Your task to perform on an android device: toggle notifications settings in the gmail app Image 0: 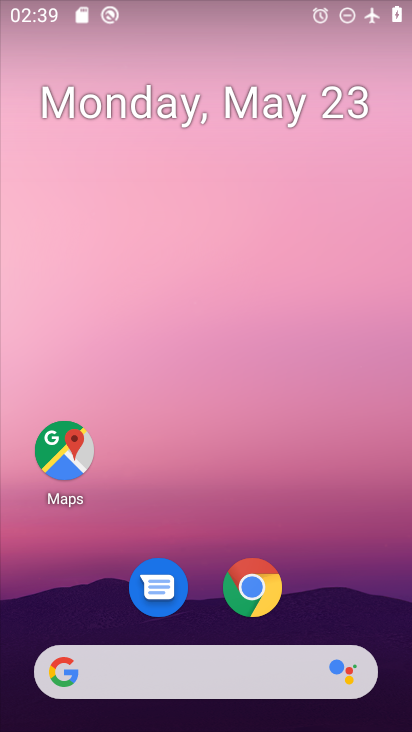
Step 0: drag from (385, 595) to (315, 2)
Your task to perform on an android device: toggle notifications settings in the gmail app Image 1: 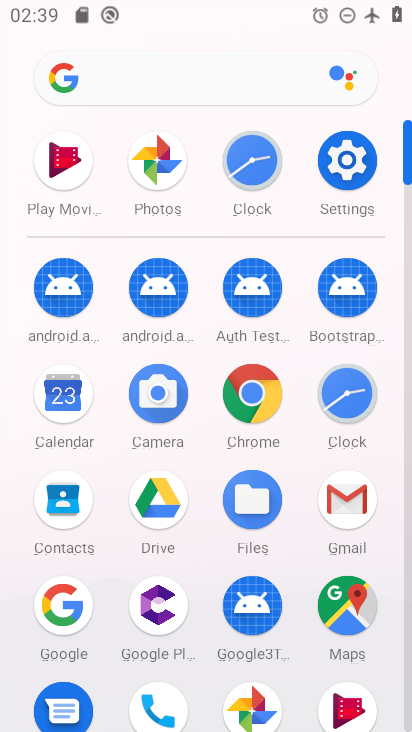
Step 1: drag from (359, 523) to (189, 443)
Your task to perform on an android device: toggle notifications settings in the gmail app Image 2: 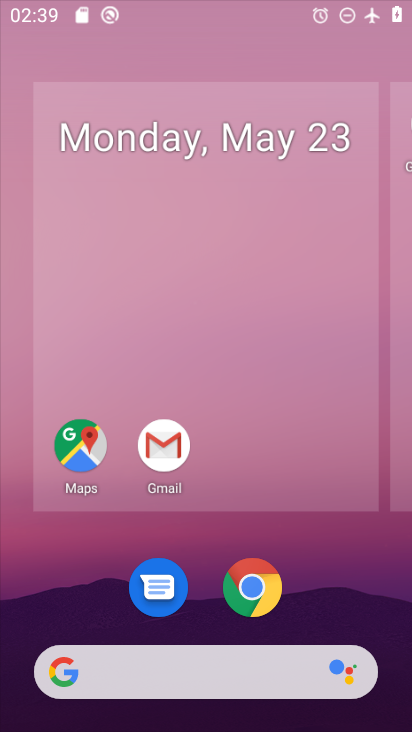
Step 2: click (189, 443)
Your task to perform on an android device: toggle notifications settings in the gmail app Image 3: 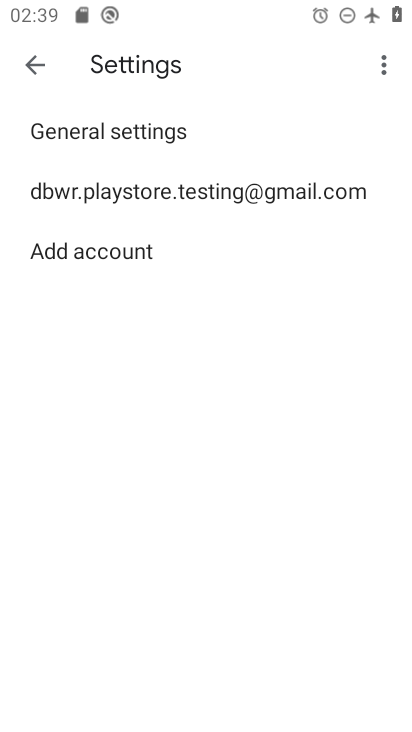
Step 3: click (73, 141)
Your task to perform on an android device: toggle notifications settings in the gmail app Image 4: 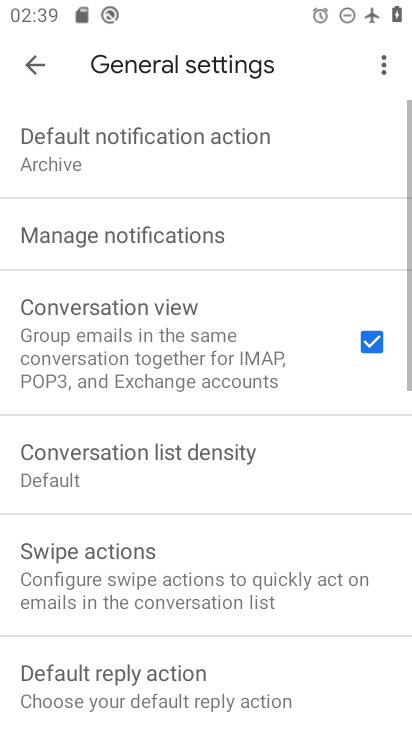
Step 4: click (125, 245)
Your task to perform on an android device: toggle notifications settings in the gmail app Image 5: 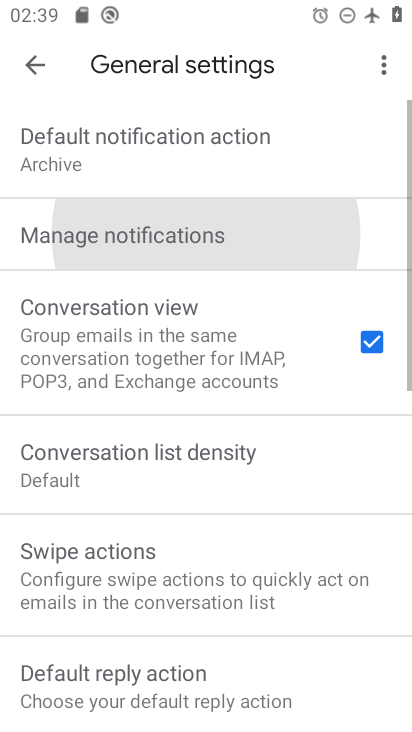
Step 5: click (125, 245)
Your task to perform on an android device: toggle notifications settings in the gmail app Image 6: 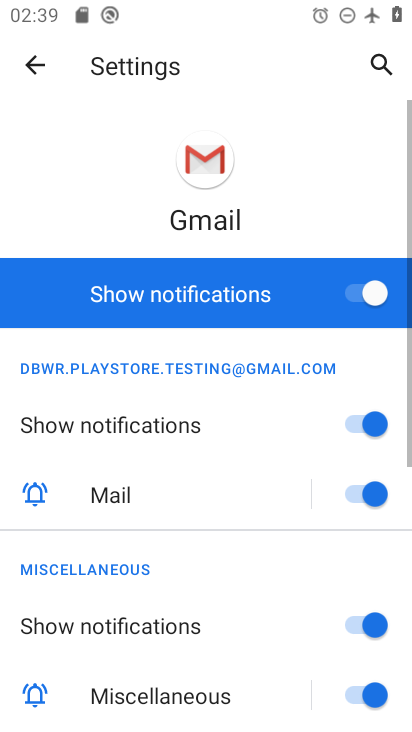
Step 6: click (345, 297)
Your task to perform on an android device: toggle notifications settings in the gmail app Image 7: 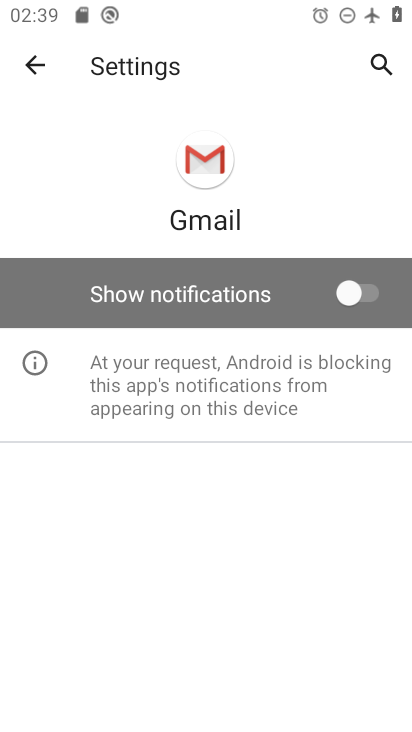
Step 7: task complete